Your task to perform on an android device: See recent photos Image 0: 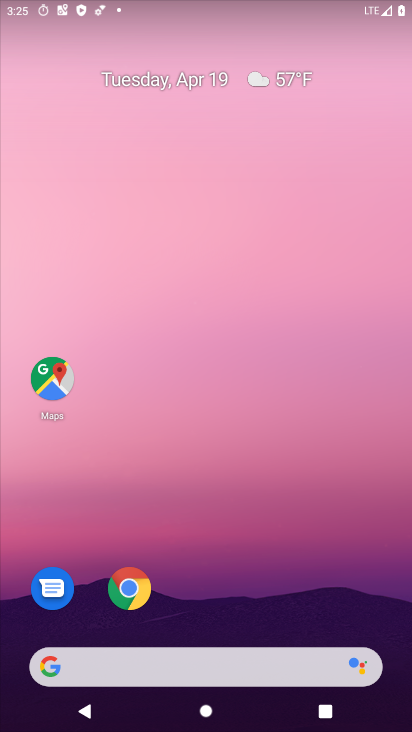
Step 0: drag from (206, 632) to (236, 172)
Your task to perform on an android device: See recent photos Image 1: 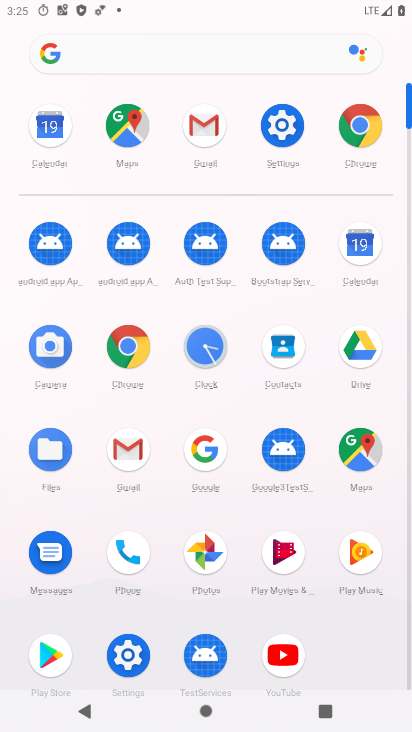
Step 1: click (212, 549)
Your task to perform on an android device: See recent photos Image 2: 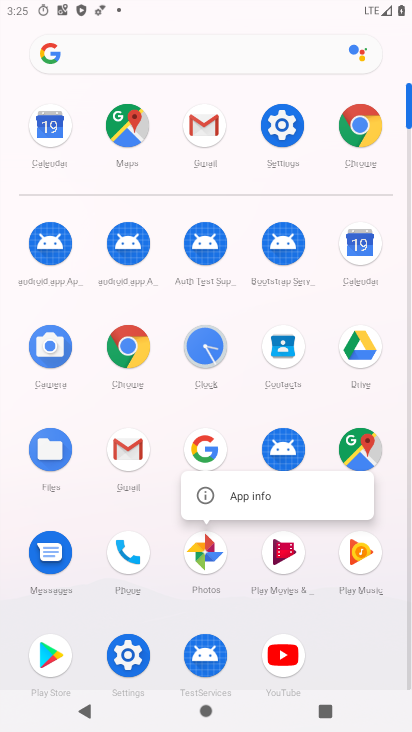
Step 2: click (255, 489)
Your task to perform on an android device: See recent photos Image 3: 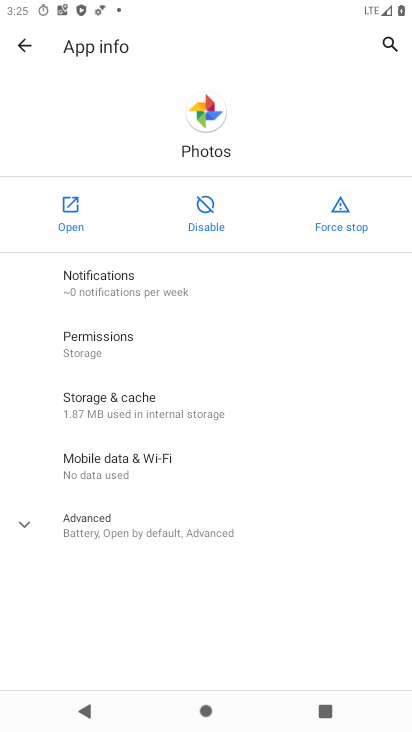
Step 3: click (67, 208)
Your task to perform on an android device: See recent photos Image 4: 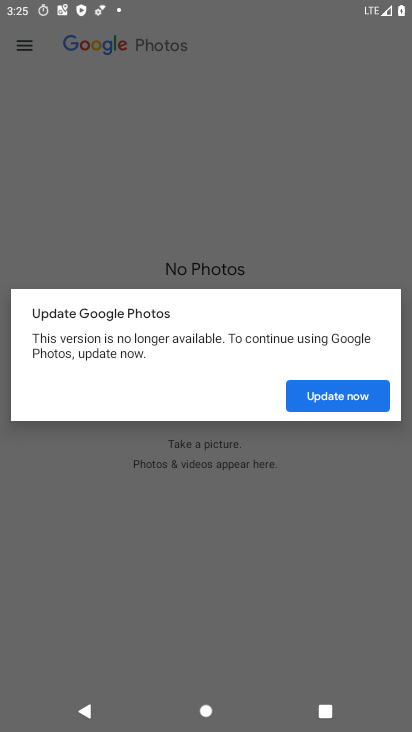
Step 4: task complete